Your task to perform on an android device: Open Maps and search for coffee Image 0: 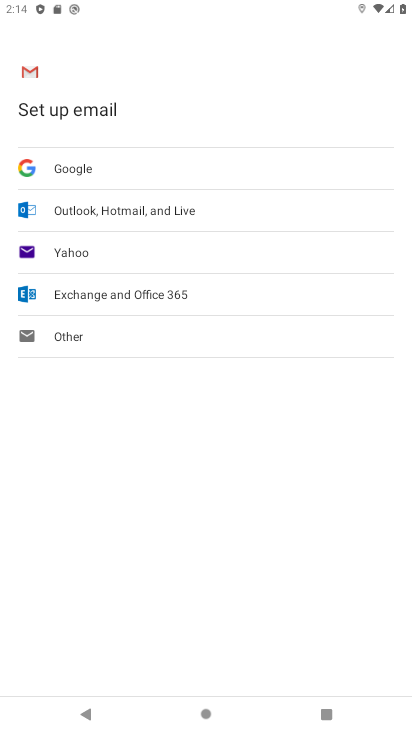
Step 0: press home button
Your task to perform on an android device: Open Maps and search for coffee Image 1: 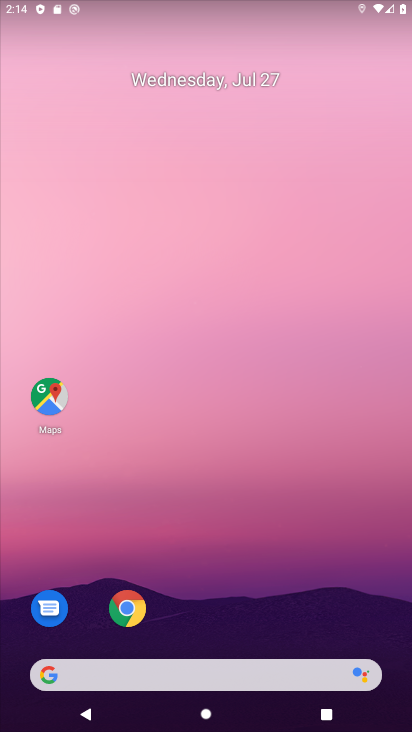
Step 1: drag from (182, 462) to (134, 721)
Your task to perform on an android device: Open Maps and search for coffee Image 2: 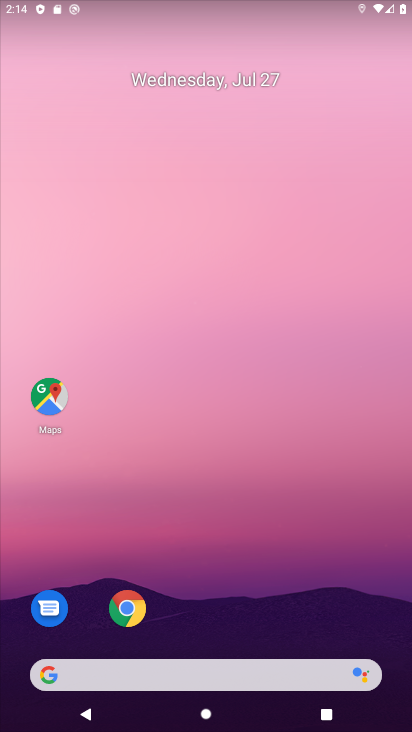
Step 2: click (50, 394)
Your task to perform on an android device: Open Maps and search for coffee Image 3: 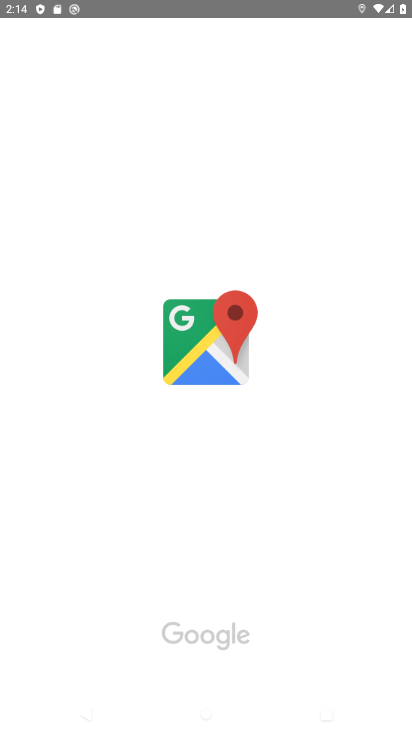
Step 3: click (50, 394)
Your task to perform on an android device: Open Maps and search for coffee Image 4: 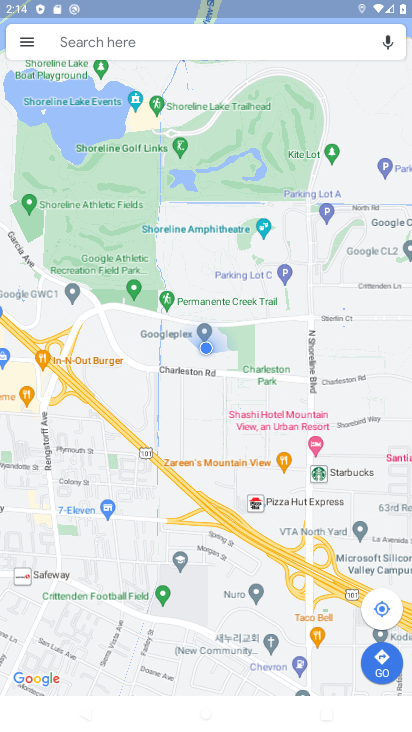
Step 4: click (195, 39)
Your task to perform on an android device: Open Maps and search for coffee Image 5: 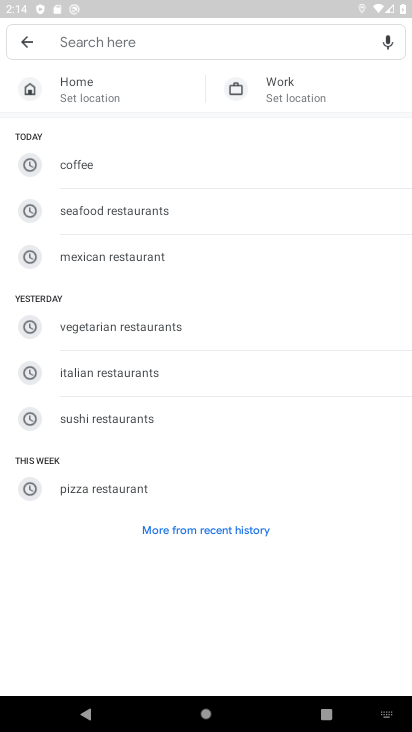
Step 5: click (79, 164)
Your task to perform on an android device: Open Maps and search for coffee Image 6: 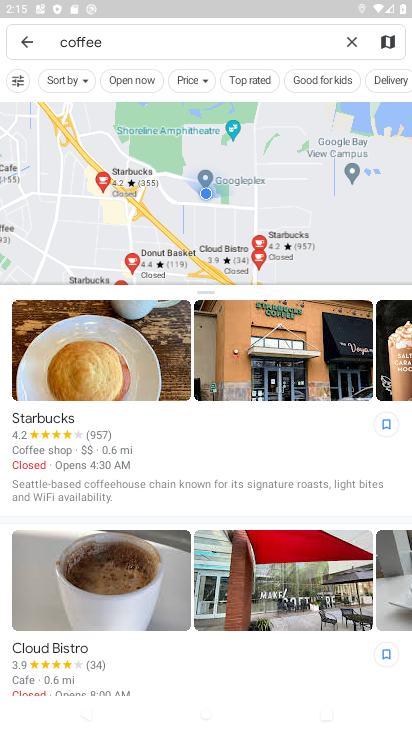
Step 6: task complete